Your task to perform on an android device: What's the weather today? Image 0: 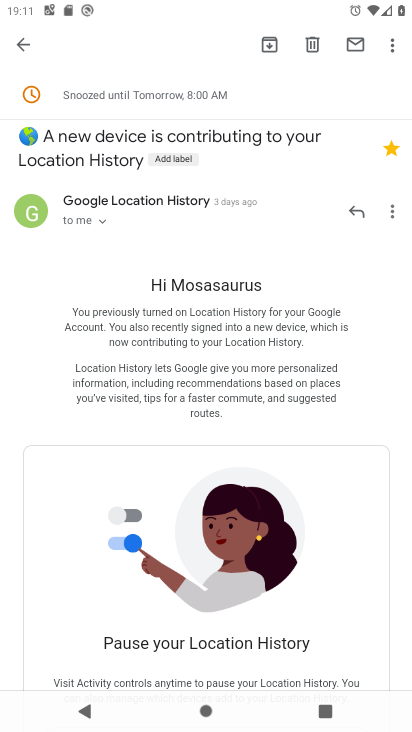
Step 0: press home button
Your task to perform on an android device: What's the weather today? Image 1: 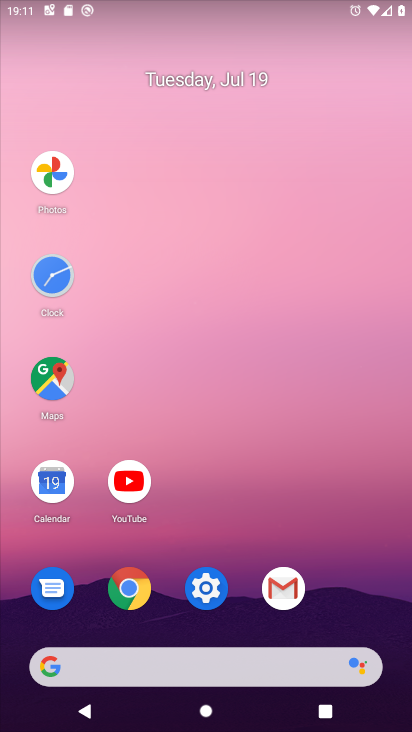
Step 1: click (164, 670)
Your task to perform on an android device: What's the weather today? Image 2: 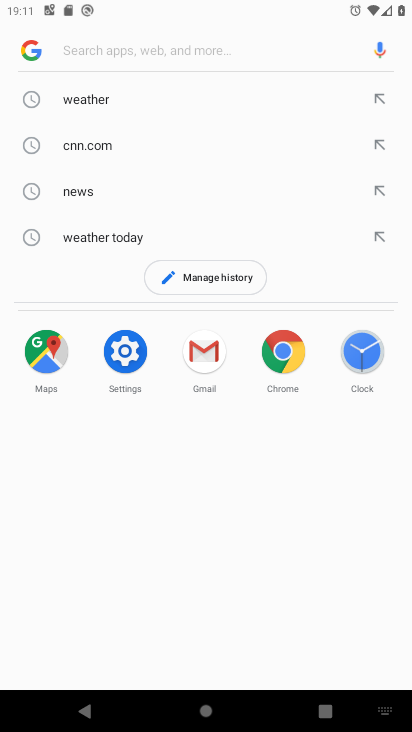
Step 2: click (83, 97)
Your task to perform on an android device: What's the weather today? Image 3: 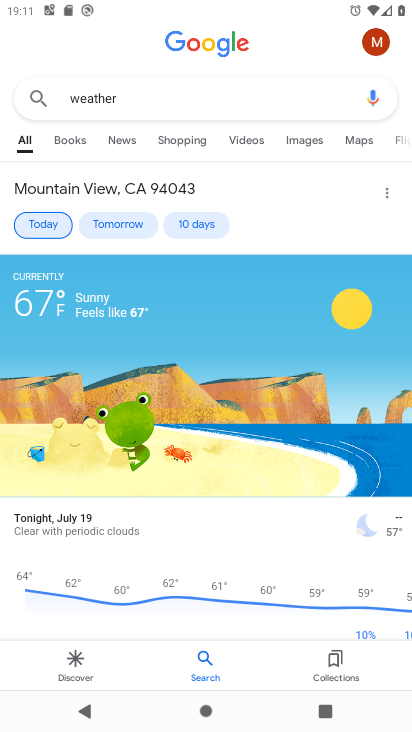
Step 3: task complete